Your task to perform on an android device: Go to Amazon Image 0: 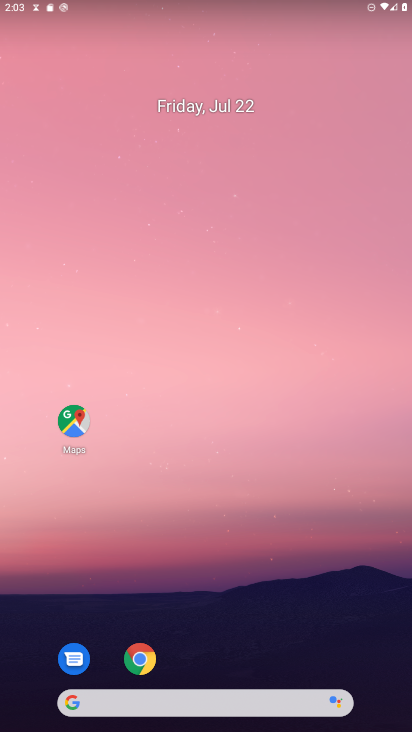
Step 0: drag from (320, 570) to (218, 29)
Your task to perform on an android device: Go to Amazon Image 1: 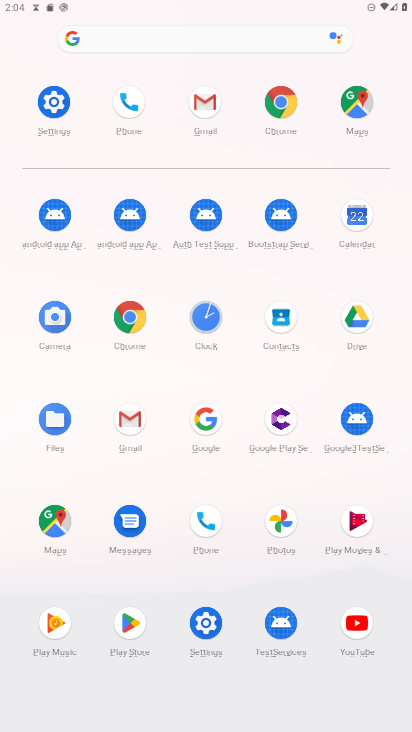
Step 1: click (280, 111)
Your task to perform on an android device: Go to Amazon Image 2: 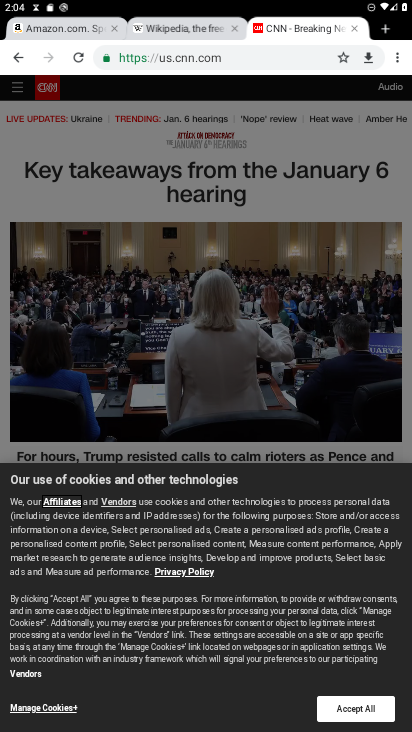
Step 2: click (18, 61)
Your task to perform on an android device: Go to Amazon Image 3: 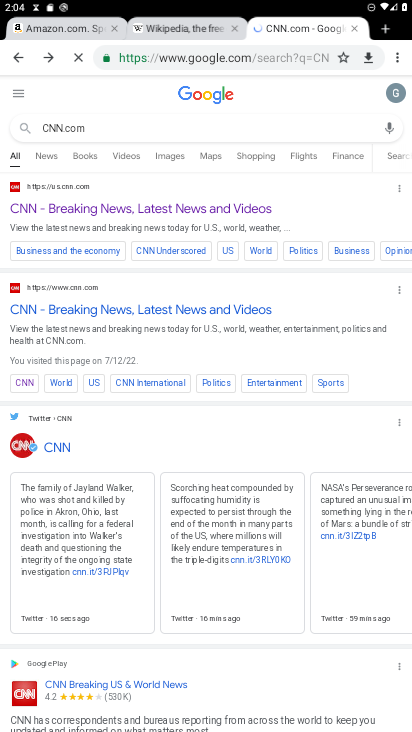
Step 3: click (16, 59)
Your task to perform on an android device: Go to Amazon Image 4: 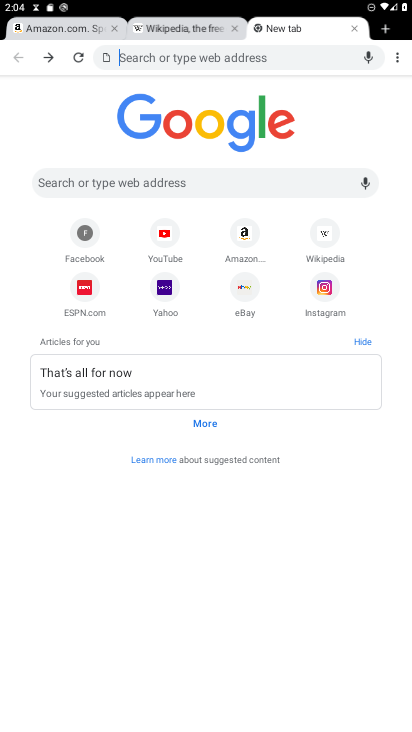
Step 4: click (236, 228)
Your task to perform on an android device: Go to Amazon Image 5: 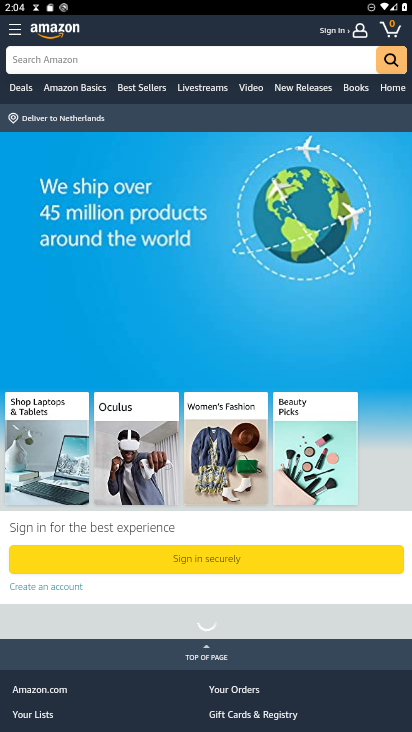
Step 5: task complete